Your task to perform on an android device: Go to notification settings Image 0: 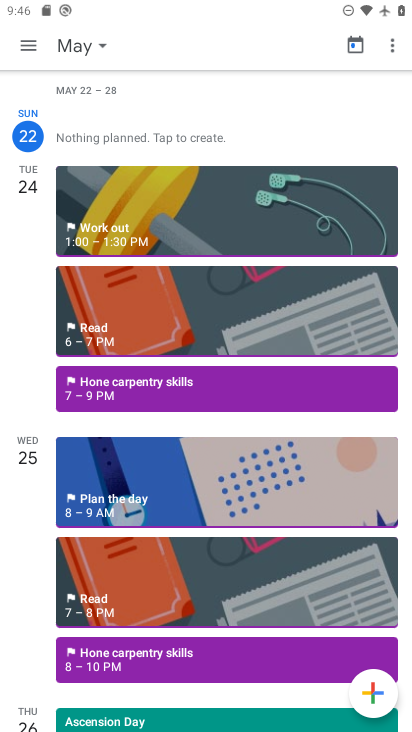
Step 0: press home button
Your task to perform on an android device: Go to notification settings Image 1: 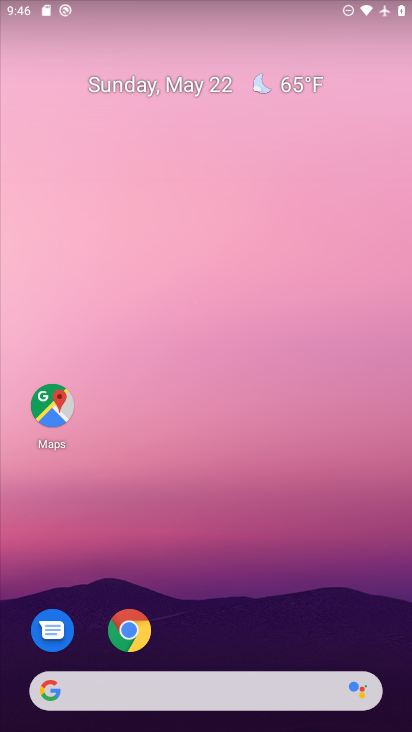
Step 1: drag from (133, 694) to (333, 131)
Your task to perform on an android device: Go to notification settings Image 2: 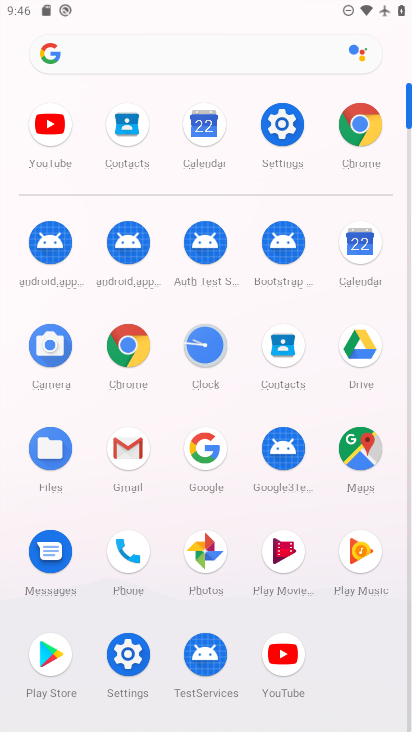
Step 2: click (292, 118)
Your task to perform on an android device: Go to notification settings Image 3: 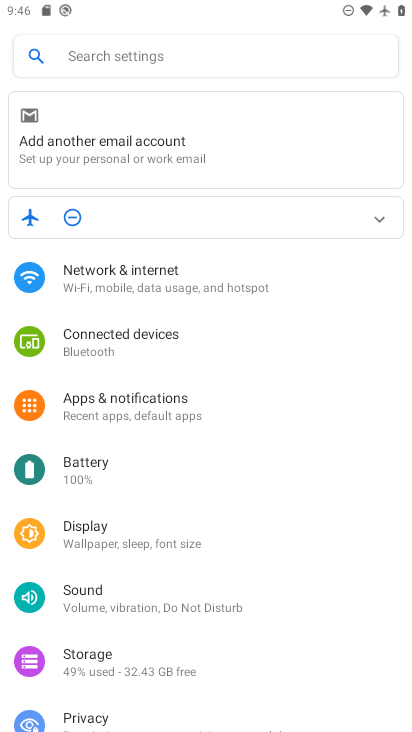
Step 3: click (151, 408)
Your task to perform on an android device: Go to notification settings Image 4: 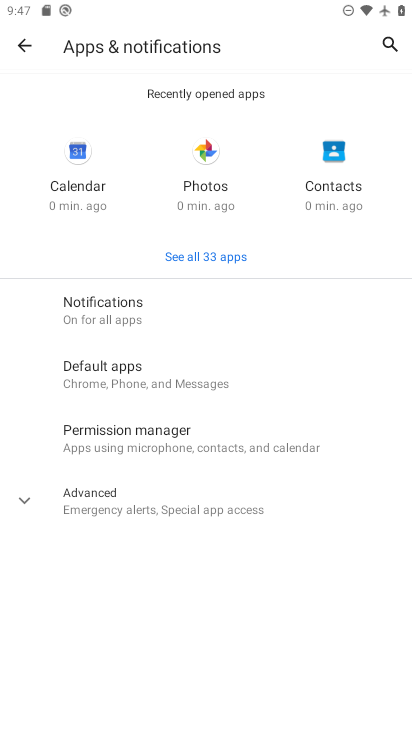
Step 4: click (121, 310)
Your task to perform on an android device: Go to notification settings Image 5: 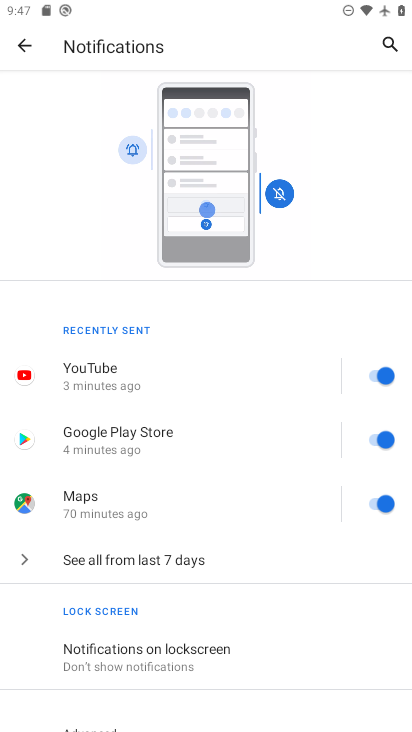
Step 5: task complete